Your task to perform on an android device: Open calendar and show me the third week of next month Image 0: 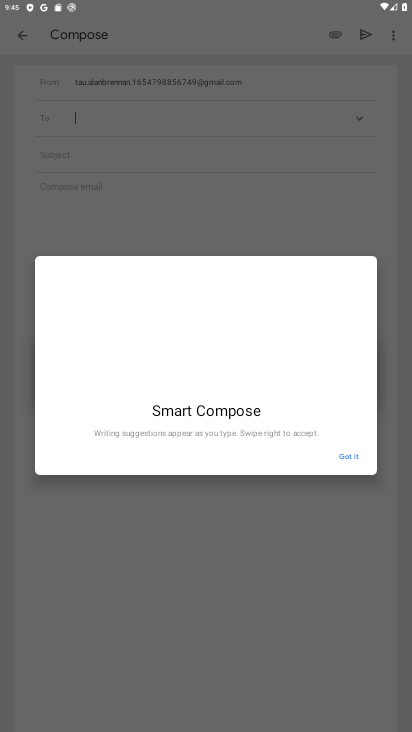
Step 0: press home button
Your task to perform on an android device: Open calendar and show me the third week of next month Image 1: 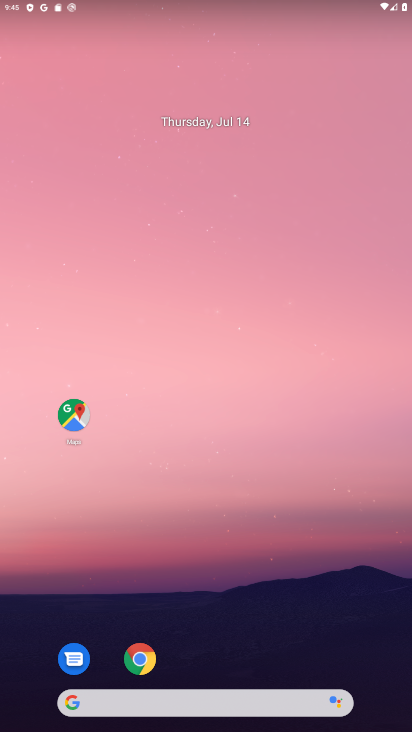
Step 1: drag from (273, 618) to (250, 91)
Your task to perform on an android device: Open calendar and show me the third week of next month Image 2: 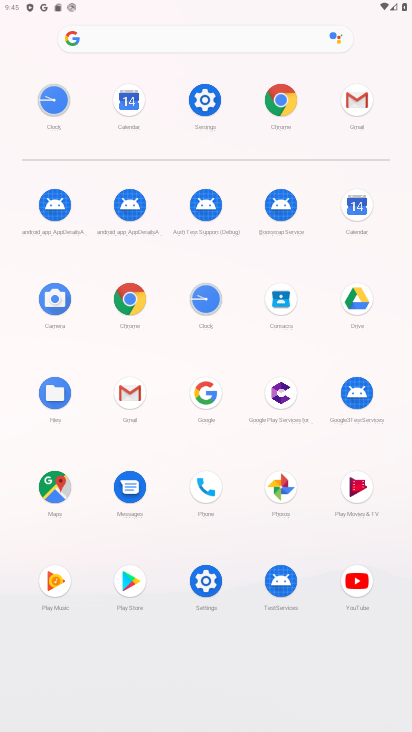
Step 2: click (363, 205)
Your task to perform on an android device: Open calendar and show me the third week of next month Image 3: 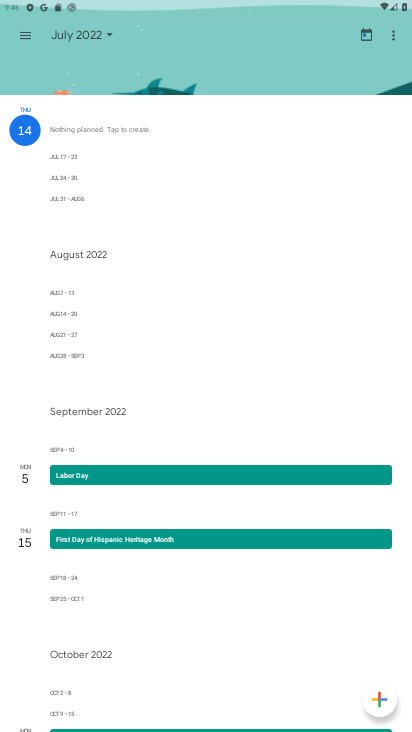
Step 3: click (89, 30)
Your task to perform on an android device: Open calendar and show me the third week of next month Image 4: 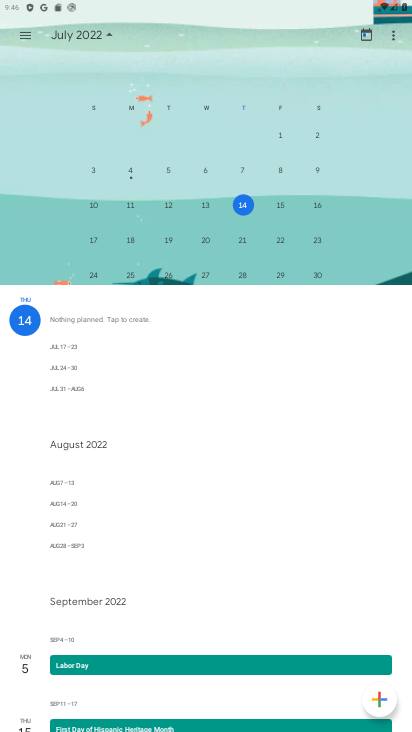
Step 4: drag from (318, 175) to (49, 166)
Your task to perform on an android device: Open calendar and show me the third week of next month Image 5: 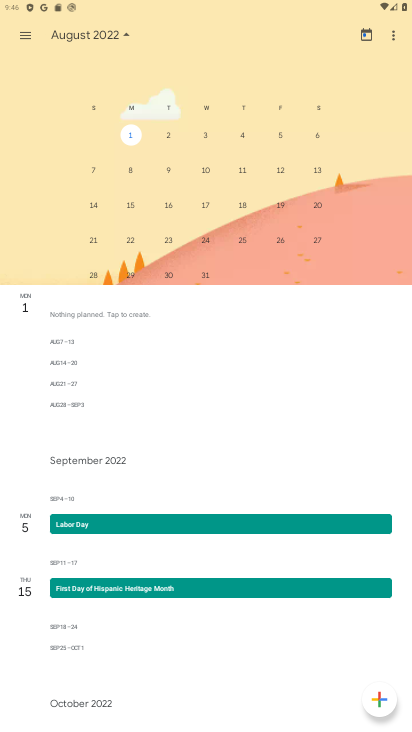
Step 5: click (170, 205)
Your task to perform on an android device: Open calendar and show me the third week of next month Image 6: 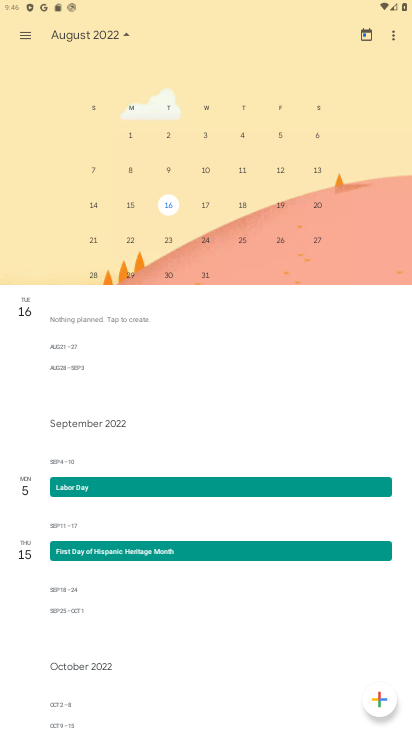
Step 6: click (29, 34)
Your task to perform on an android device: Open calendar and show me the third week of next month Image 7: 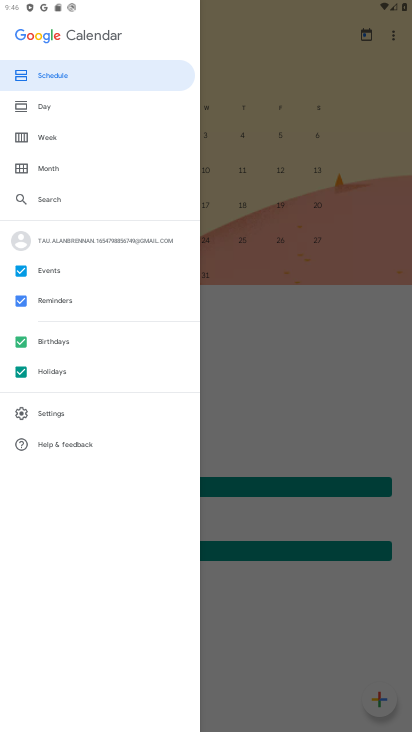
Step 7: click (53, 170)
Your task to perform on an android device: Open calendar and show me the third week of next month Image 8: 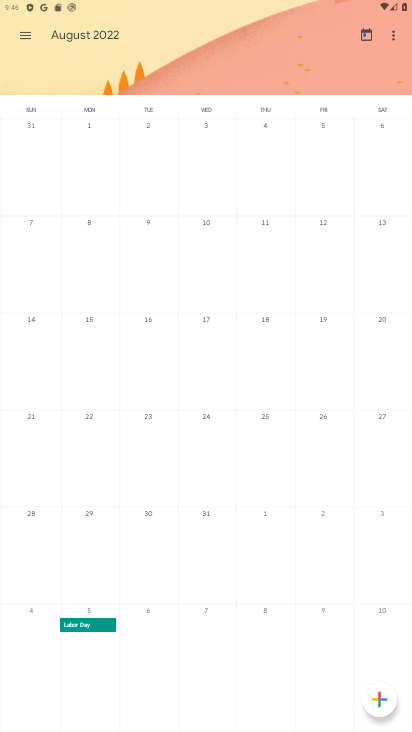
Step 8: click (147, 321)
Your task to perform on an android device: Open calendar and show me the third week of next month Image 9: 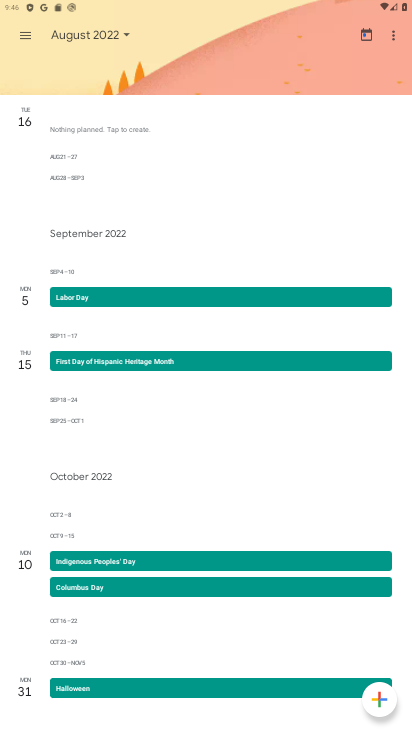
Step 9: task complete